Your task to perform on an android device: open app "Yahoo Mail" Image 0: 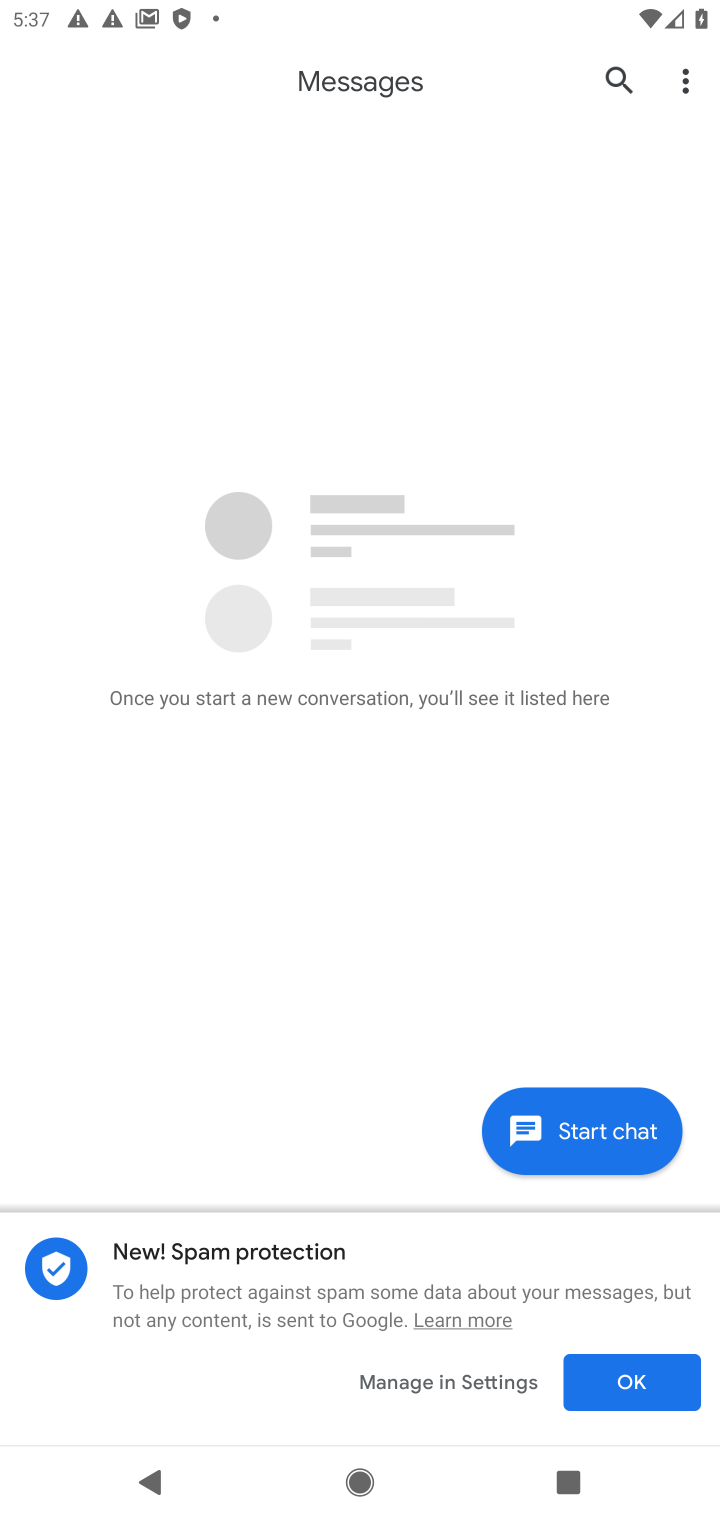
Step 0: press back button
Your task to perform on an android device: open app "Yahoo Mail" Image 1: 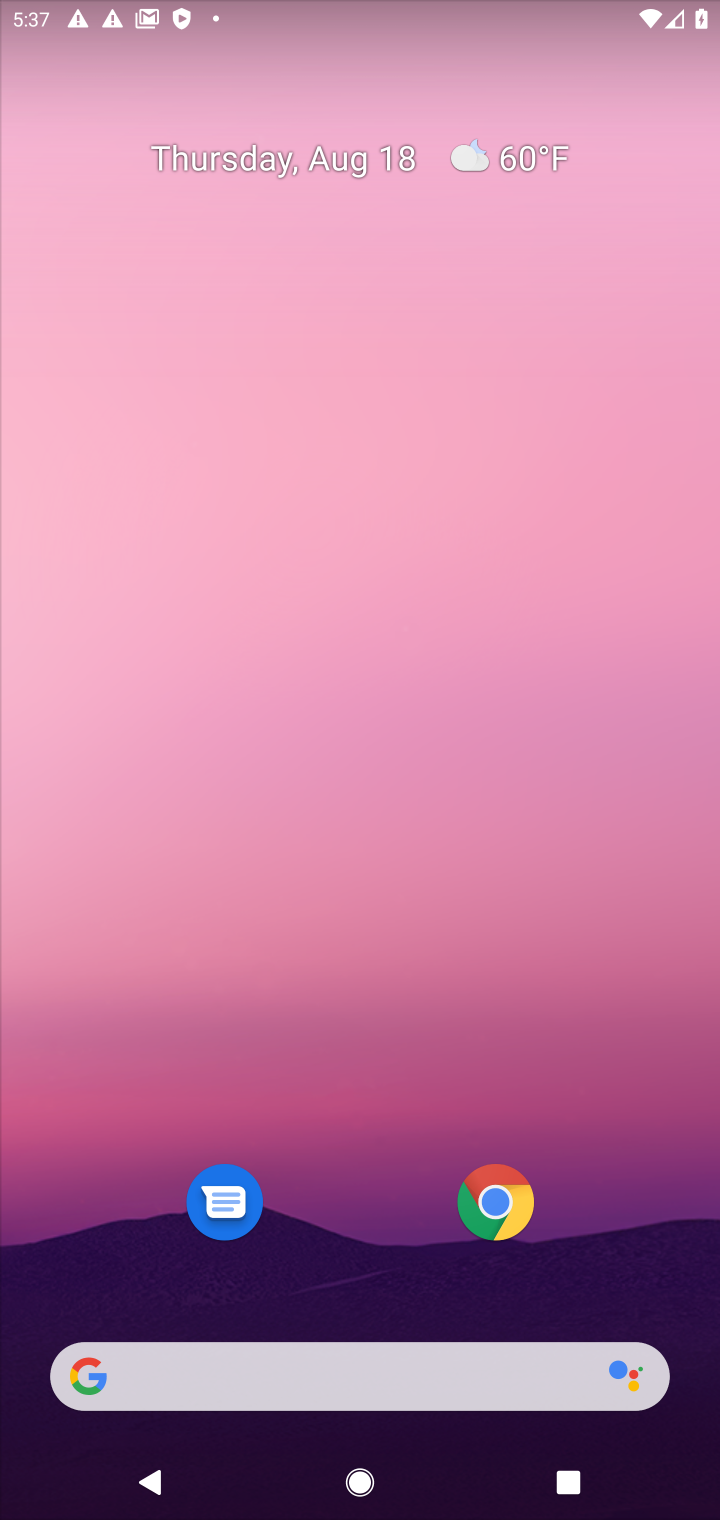
Step 1: drag from (457, 23) to (460, 172)
Your task to perform on an android device: open app "Yahoo Mail" Image 2: 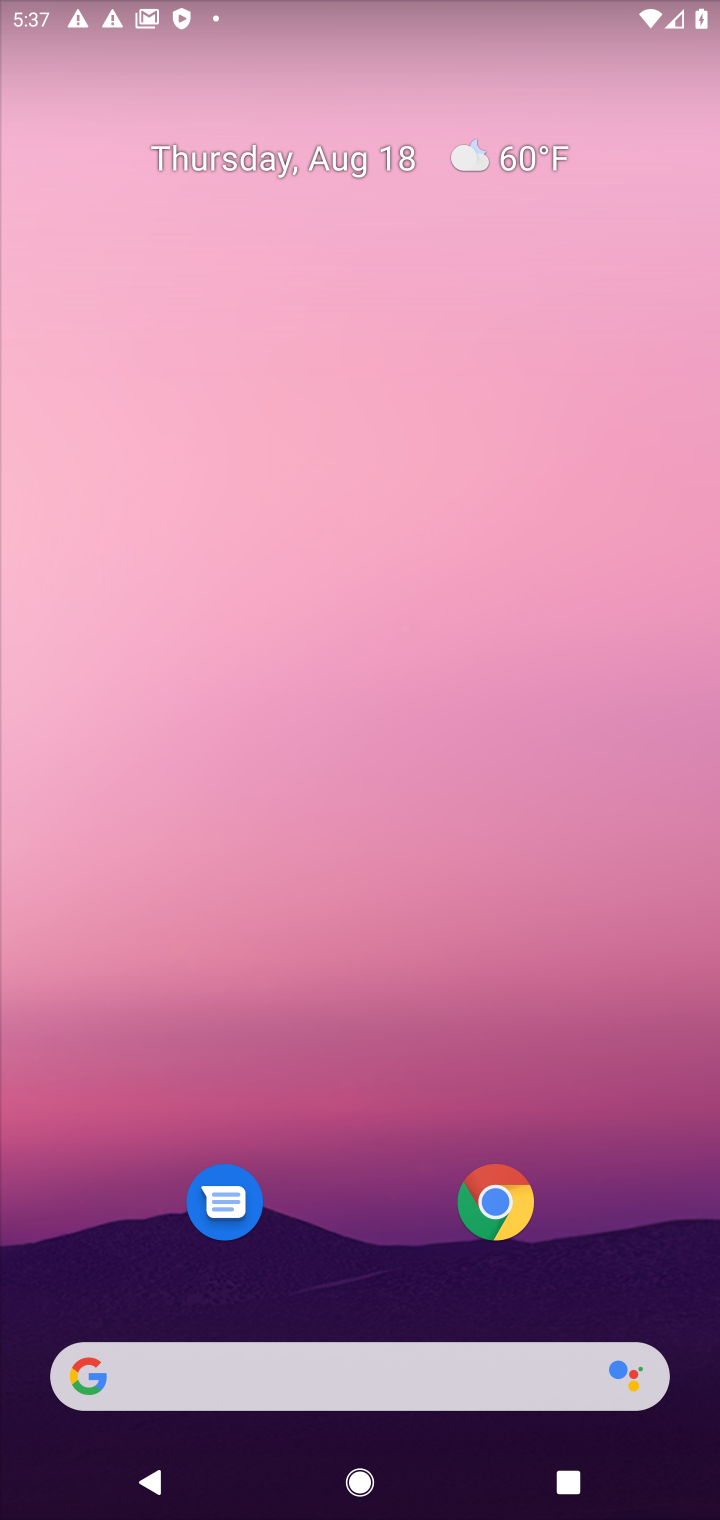
Step 2: drag from (283, 1368) to (258, 53)
Your task to perform on an android device: open app "Yahoo Mail" Image 3: 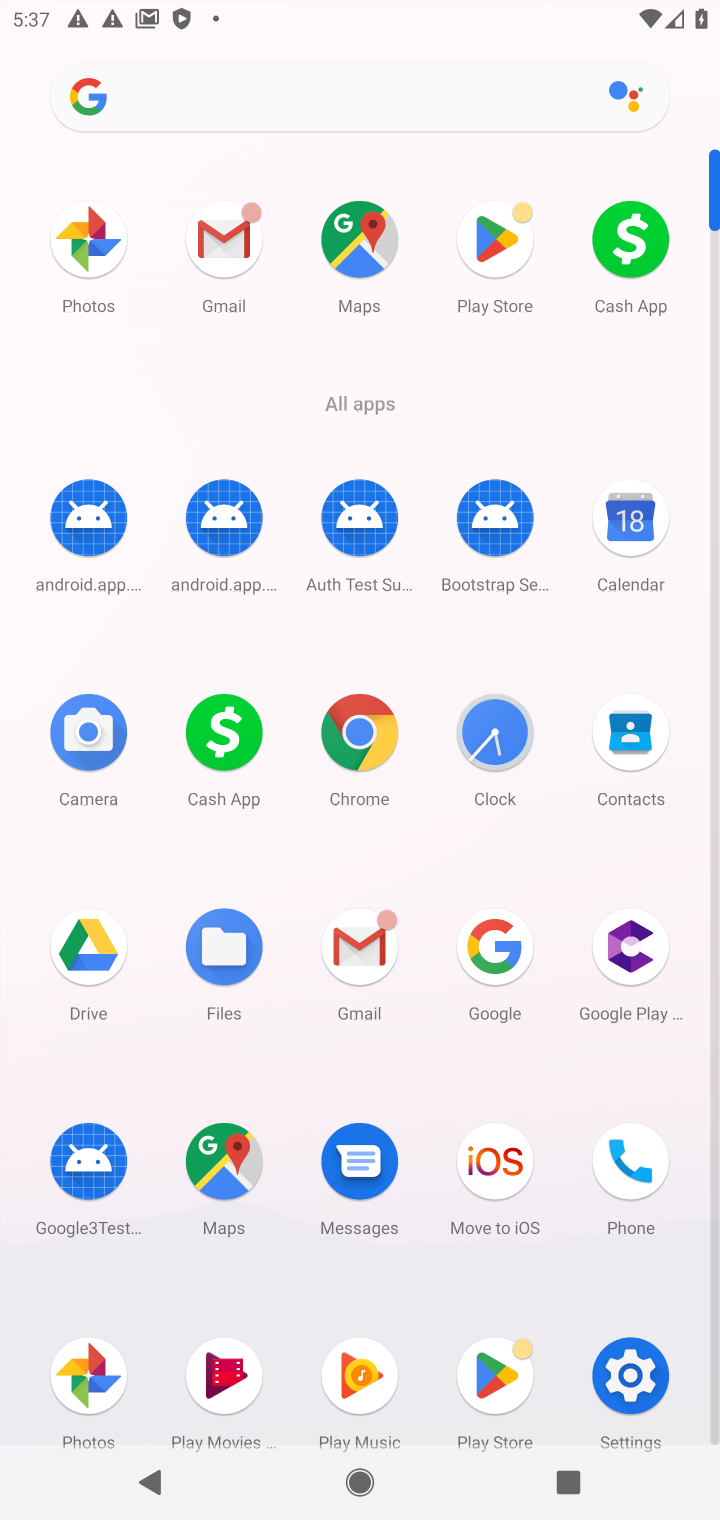
Step 3: click (485, 248)
Your task to perform on an android device: open app "Yahoo Mail" Image 4: 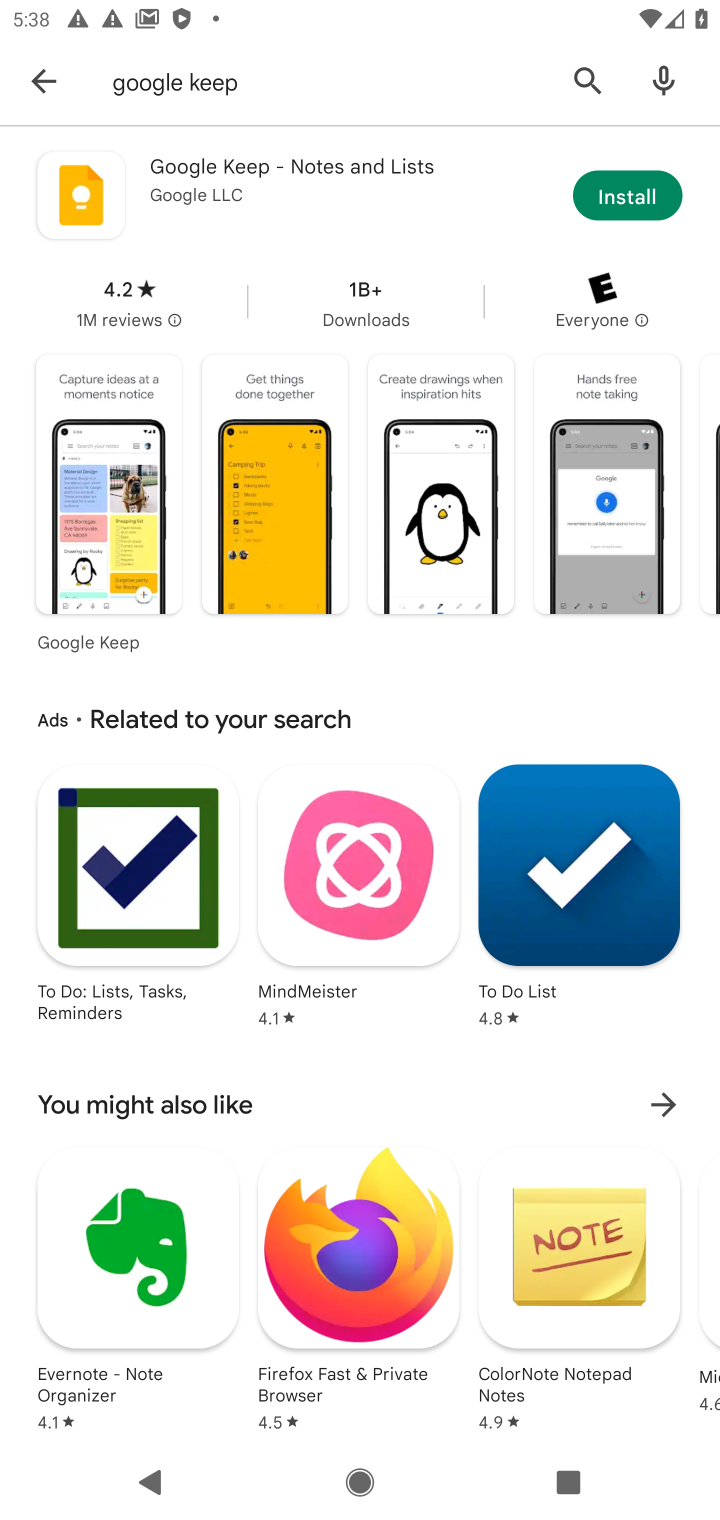
Step 4: click (599, 84)
Your task to perform on an android device: open app "Yahoo Mail" Image 5: 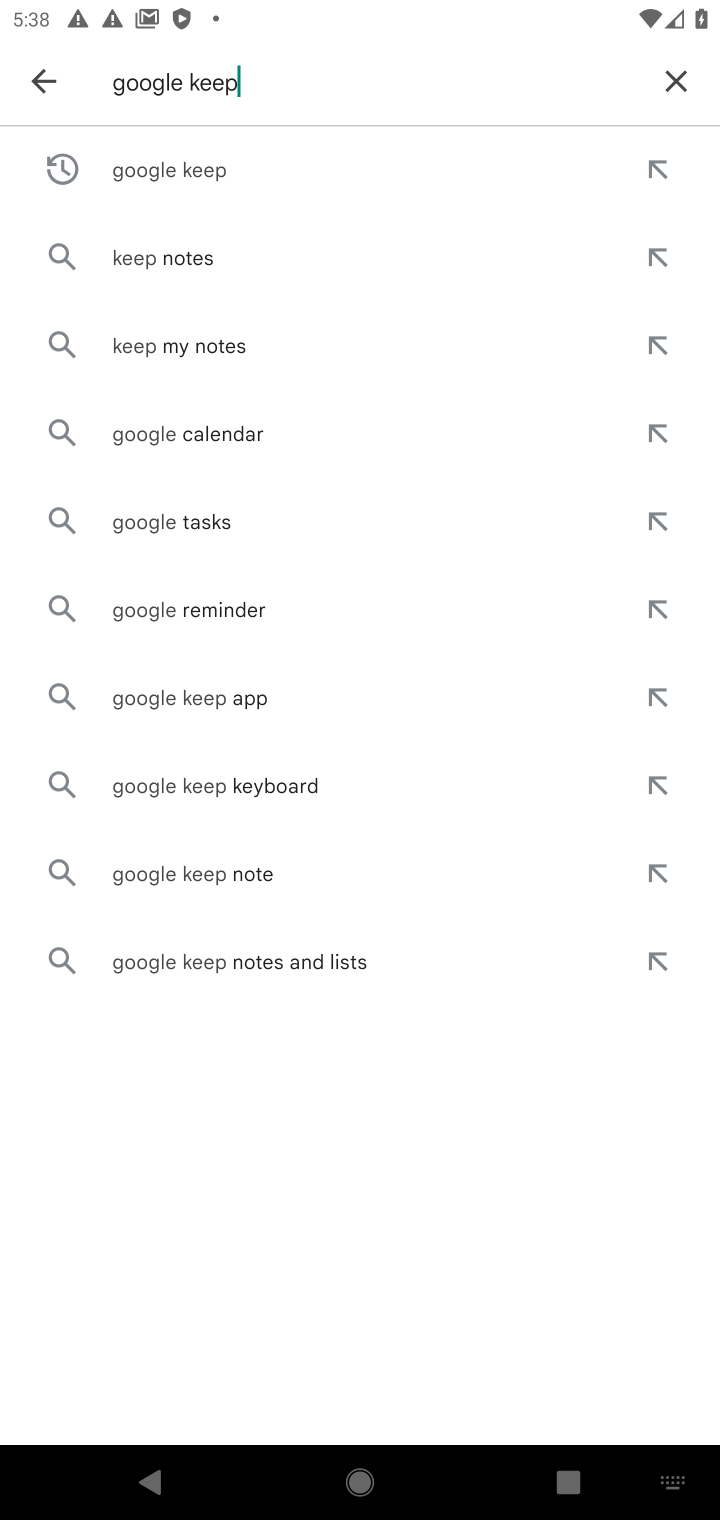
Step 5: click (666, 70)
Your task to perform on an android device: open app "Yahoo Mail" Image 6: 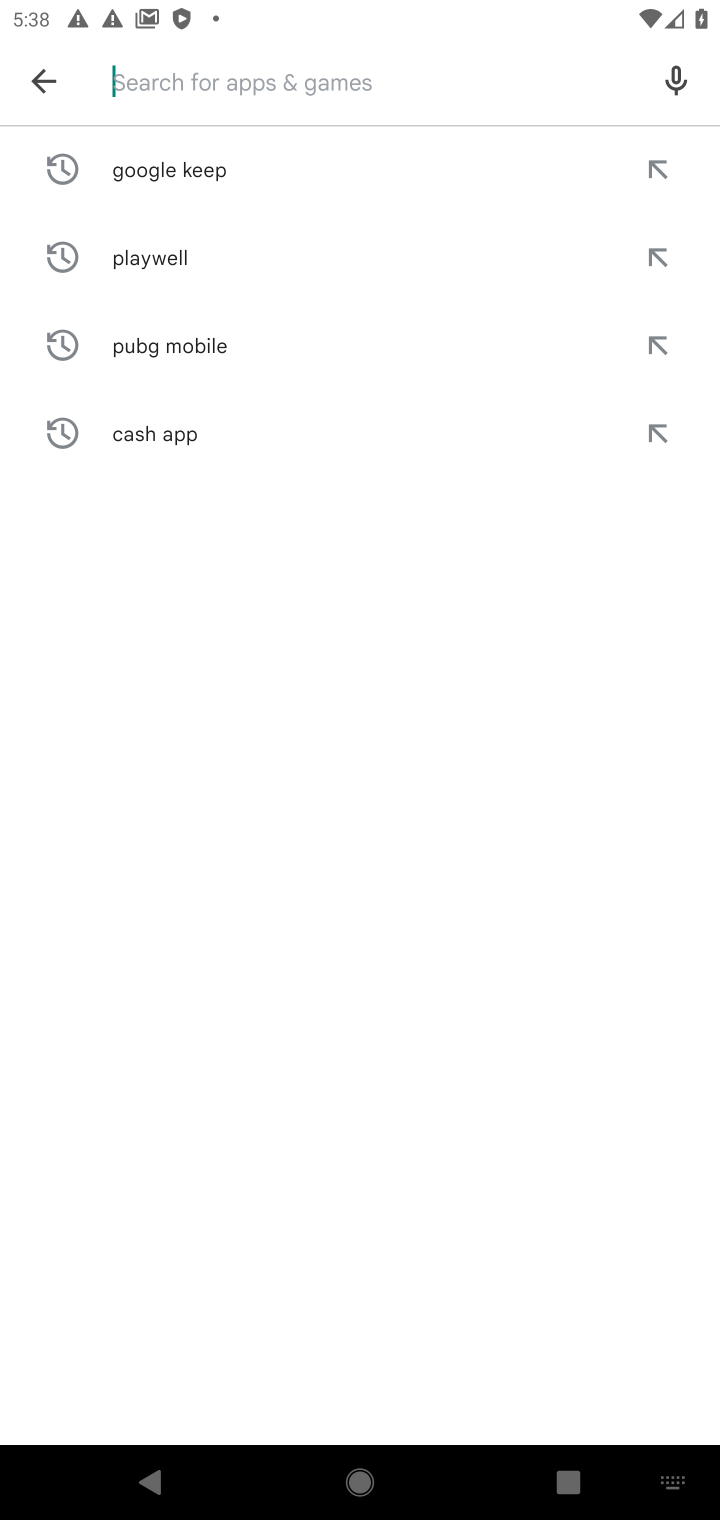
Step 6: type "yahoo mail"
Your task to perform on an android device: open app "Yahoo Mail" Image 7: 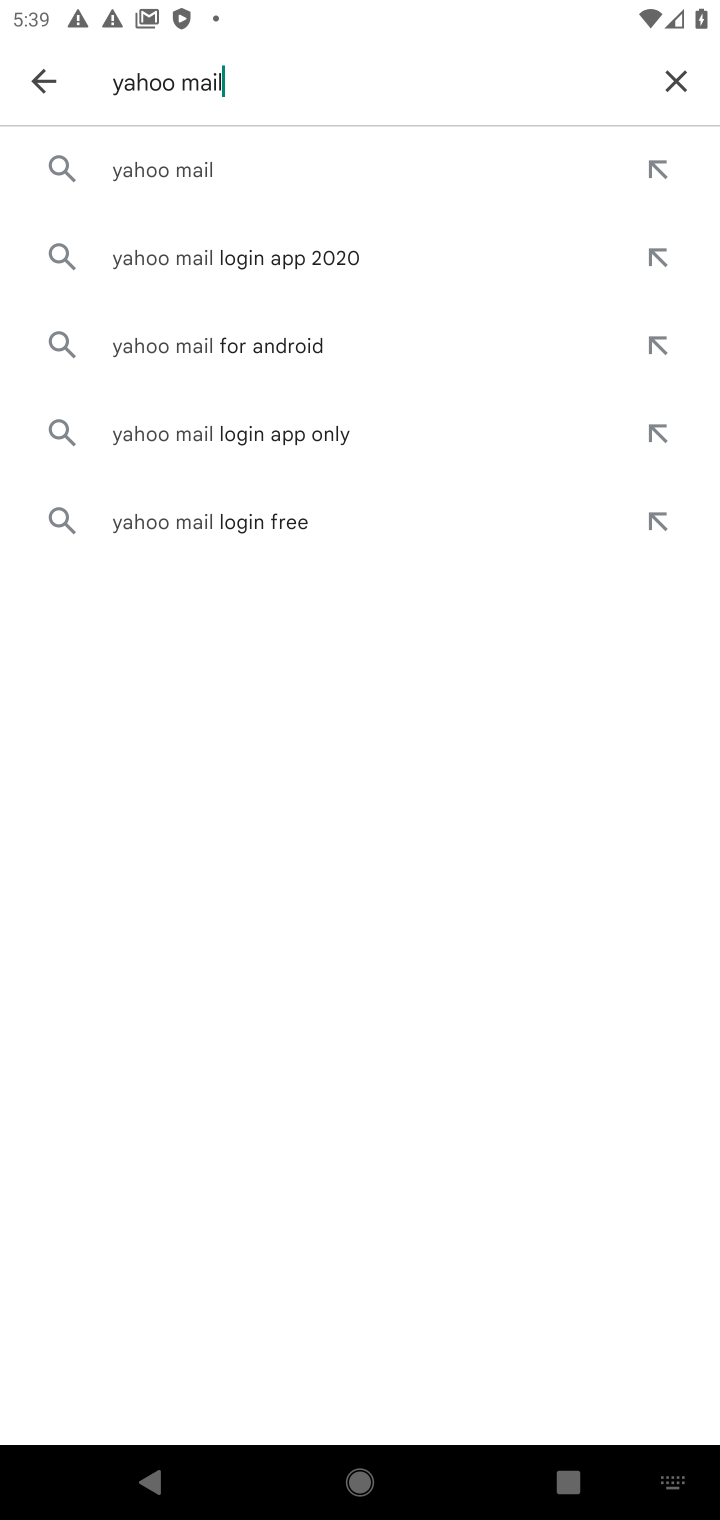
Step 7: click (137, 154)
Your task to perform on an android device: open app "Yahoo Mail" Image 8: 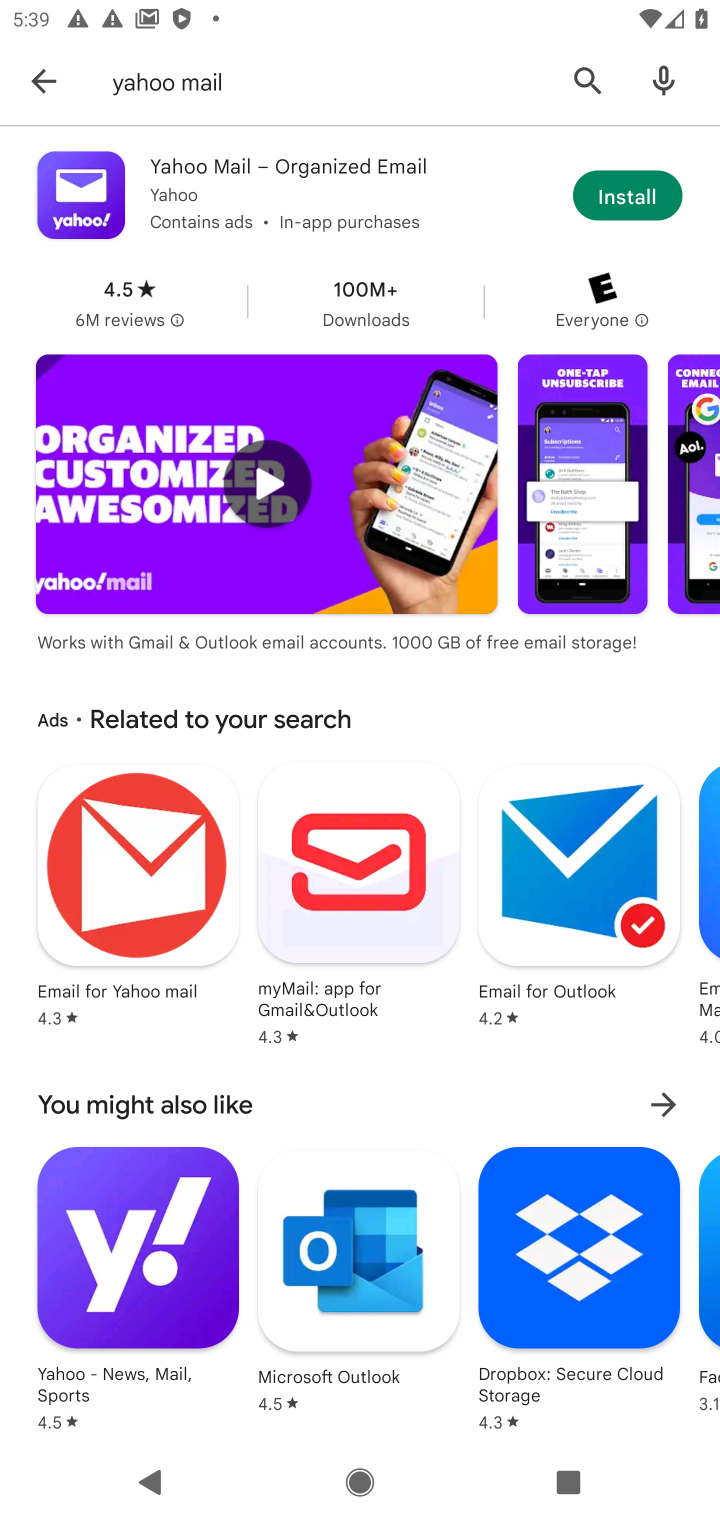
Step 8: task complete